Your task to perform on an android device: turn off improve location accuracy Image 0: 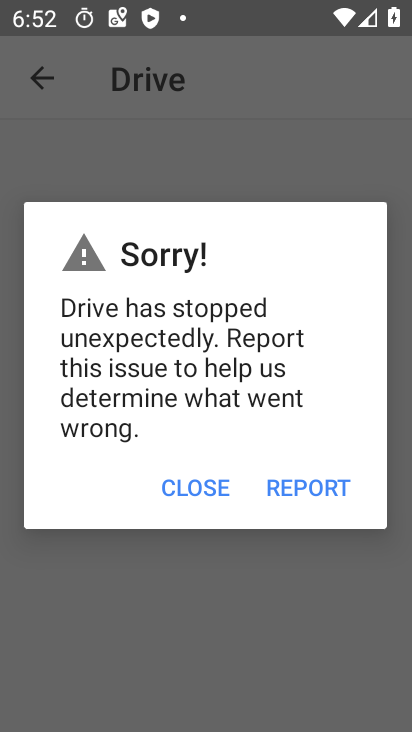
Step 0: press home button
Your task to perform on an android device: turn off improve location accuracy Image 1: 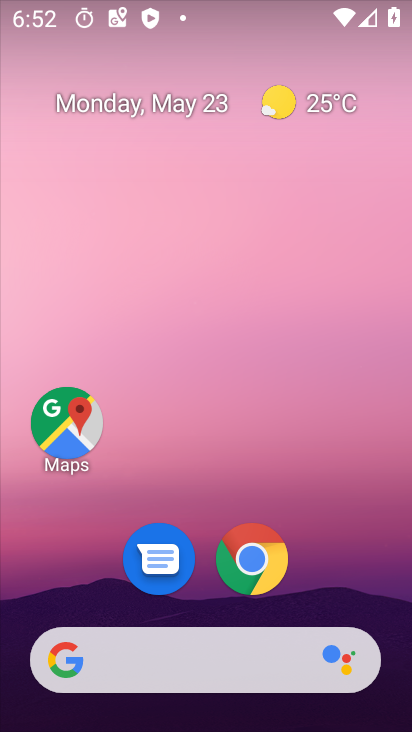
Step 1: drag from (384, 659) to (294, 0)
Your task to perform on an android device: turn off improve location accuracy Image 2: 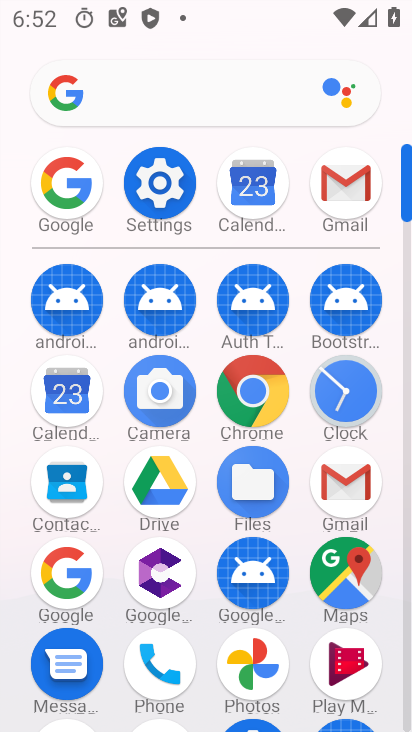
Step 2: click (150, 189)
Your task to perform on an android device: turn off improve location accuracy Image 3: 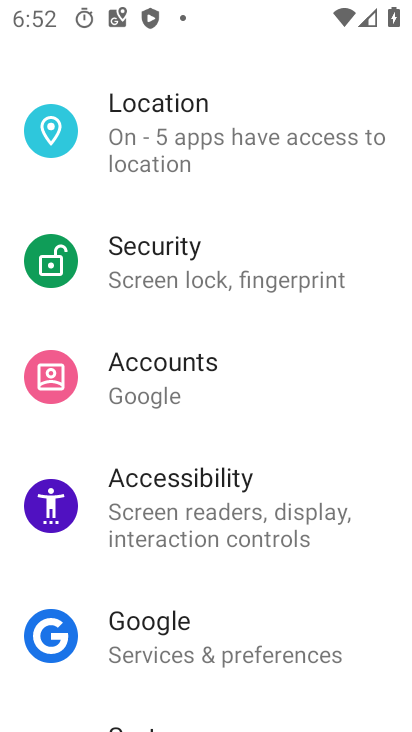
Step 3: drag from (152, 686) to (204, 99)
Your task to perform on an android device: turn off improve location accuracy Image 4: 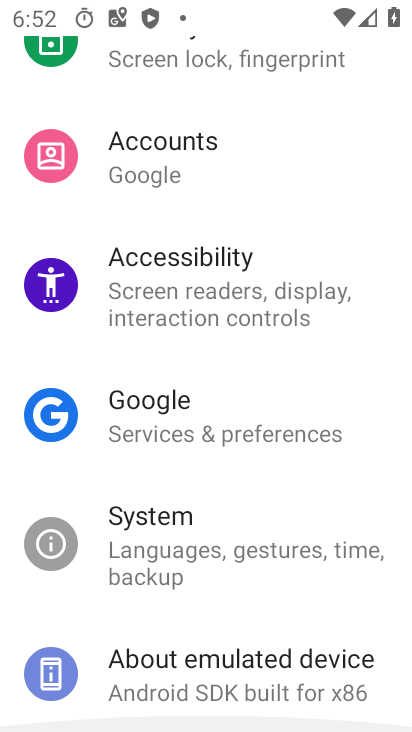
Step 4: drag from (204, 99) to (216, 562)
Your task to perform on an android device: turn off improve location accuracy Image 5: 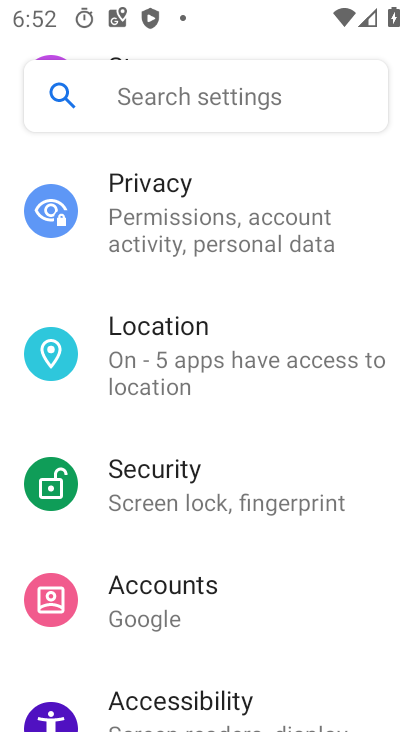
Step 5: click (150, 383)
Your task to perform on an android device: turn off improve location accuracy Image 6: 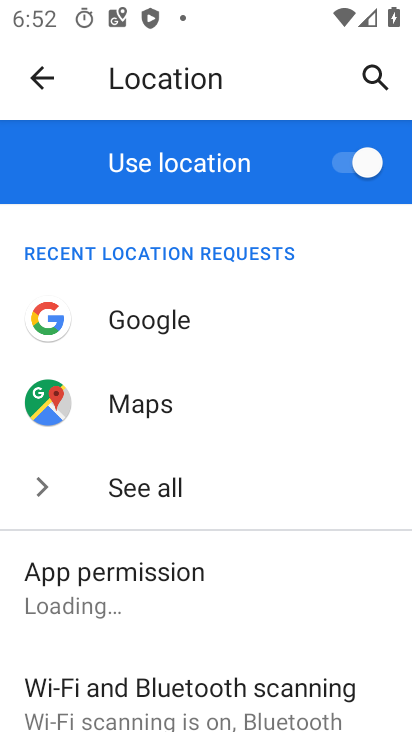
Step 6: drag from (149, 697) to (180, 368)
Your task to perform on an android device: turn off improve location accuracy Image 7: 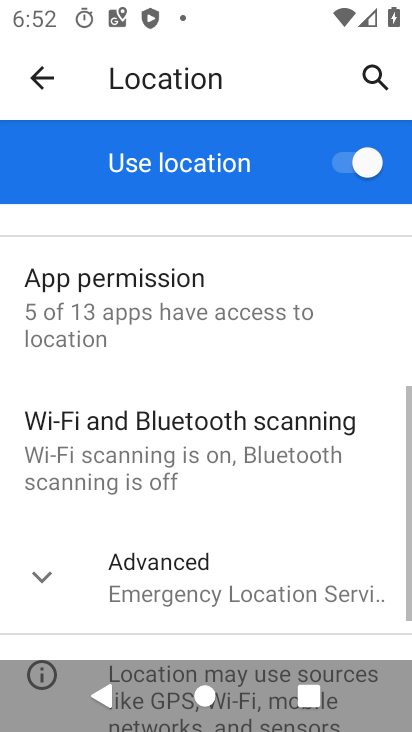
Step 7: click (150, 557)
Your task to perform on an android device: turn off improve location accuracy Image 8: 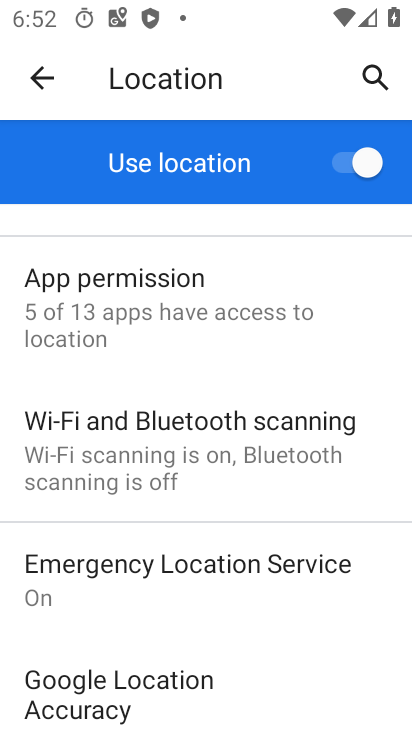
Step 8: click (132, 678)
Your task to perform on an android device: turn off improve location accuracy Image 9: 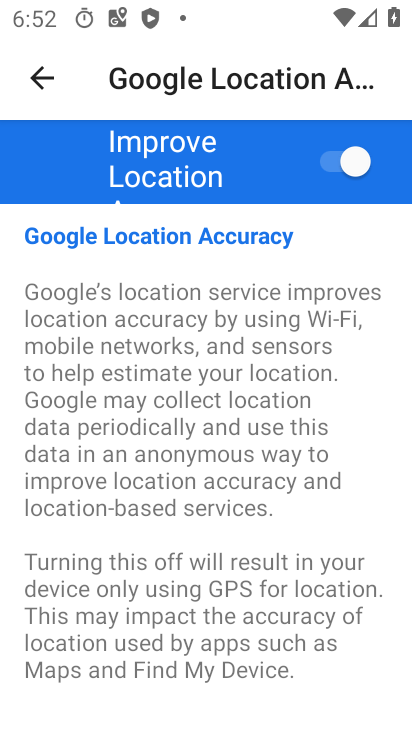
Step 9: click (330, 144)
Your task to perform on an android device: turn off improve location accuracy Image 10: 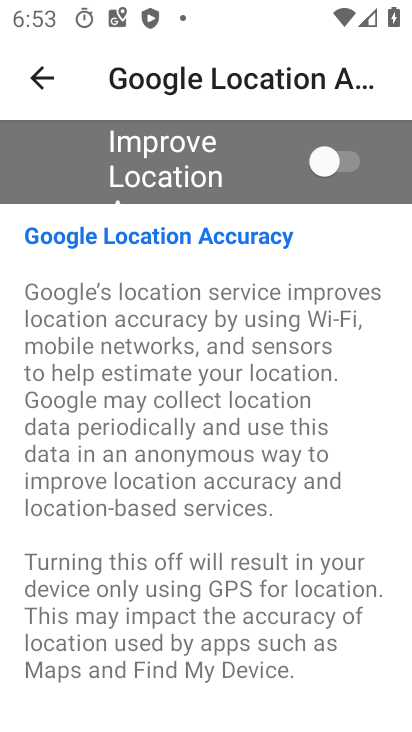
Step 10: task complete